Your task to perform on an android device: Search for the best lawnmowers on Lowes.com Image 0: 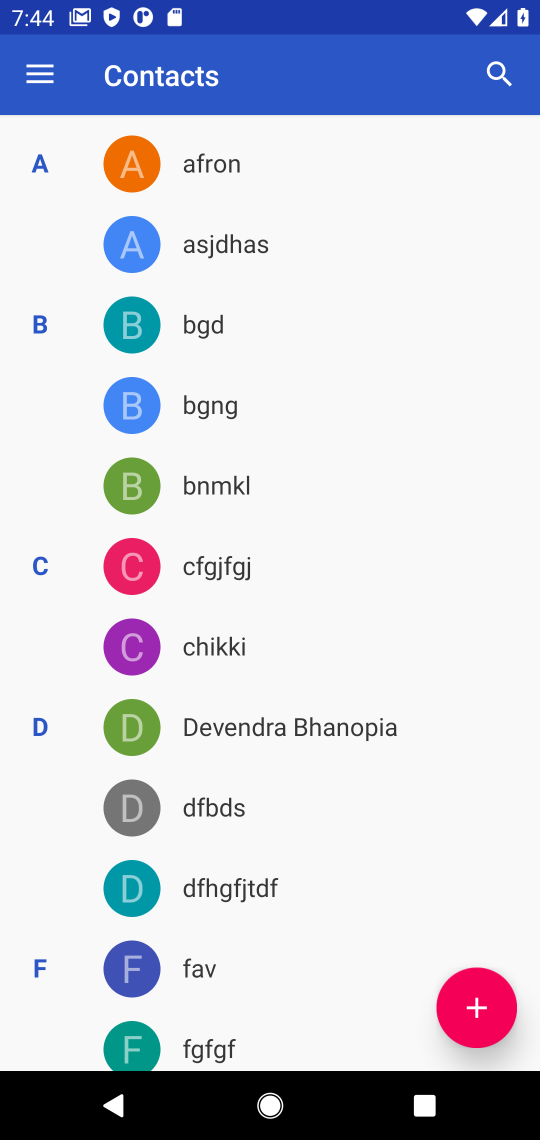
Step 0: press home button
Your task to perform on an android device: Search for the best lawnmowers on Lowes.com Image 1: 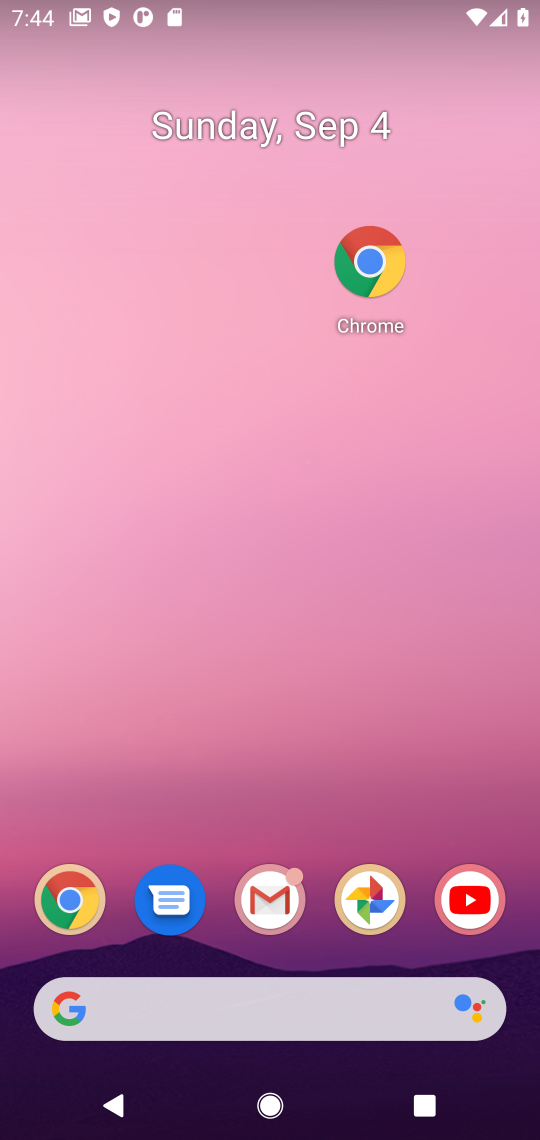
Step 1: drag from (309, 975) to (187, 224)
Your task to perform on an android device: Search for the best lawnmowers on Lowes.com Image 2: 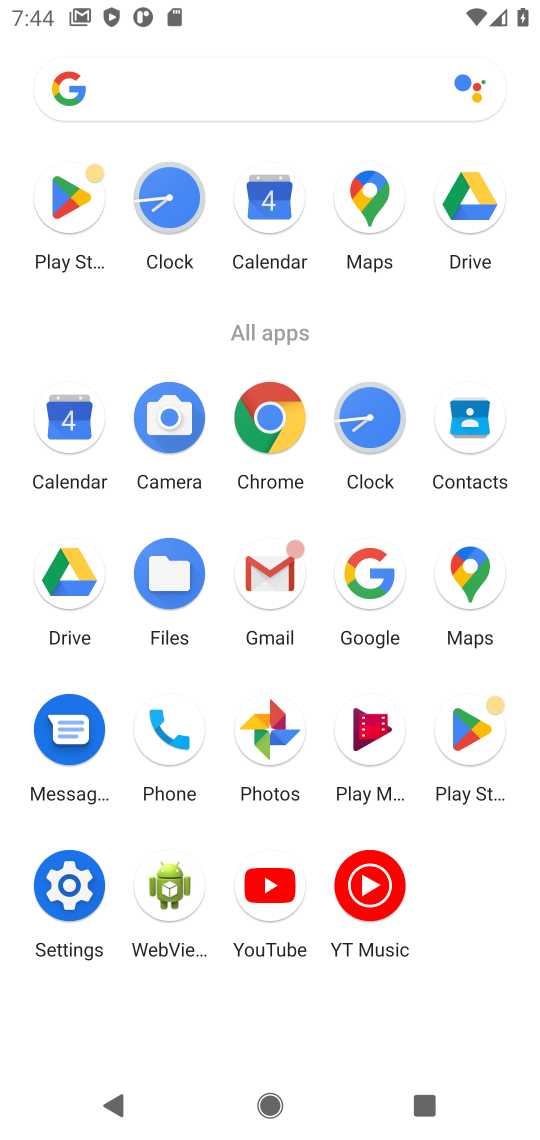
Step 2: click (279, 446)
Your task to perform on an android device: Search for the best lawnmowers on Lowes.com Image 3: 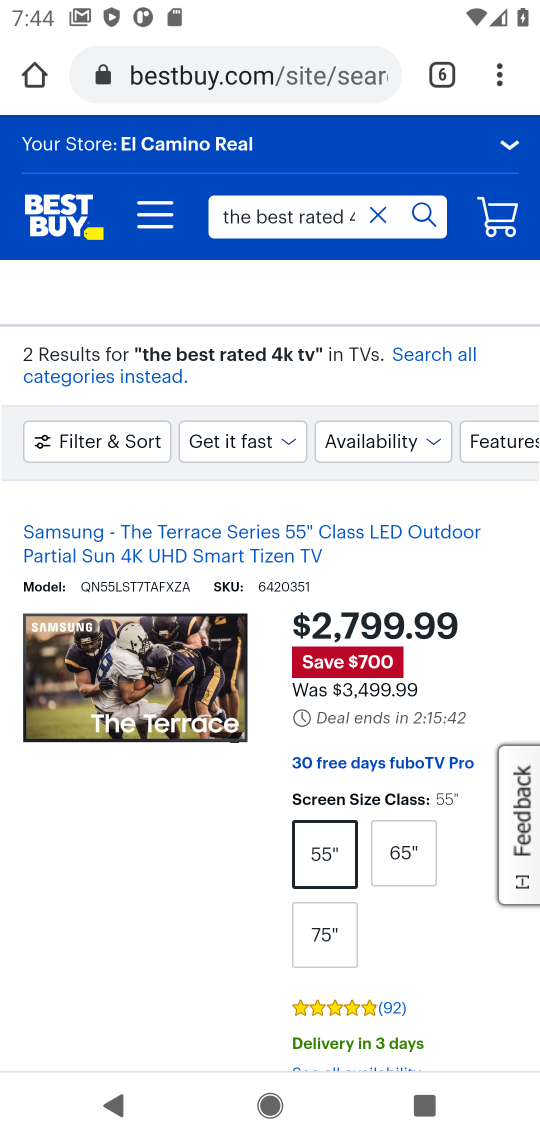
Step 3: click (438, 74)
Your task to perform on an android device: Search for the best lawnmowers on Lowes.com Image 4: 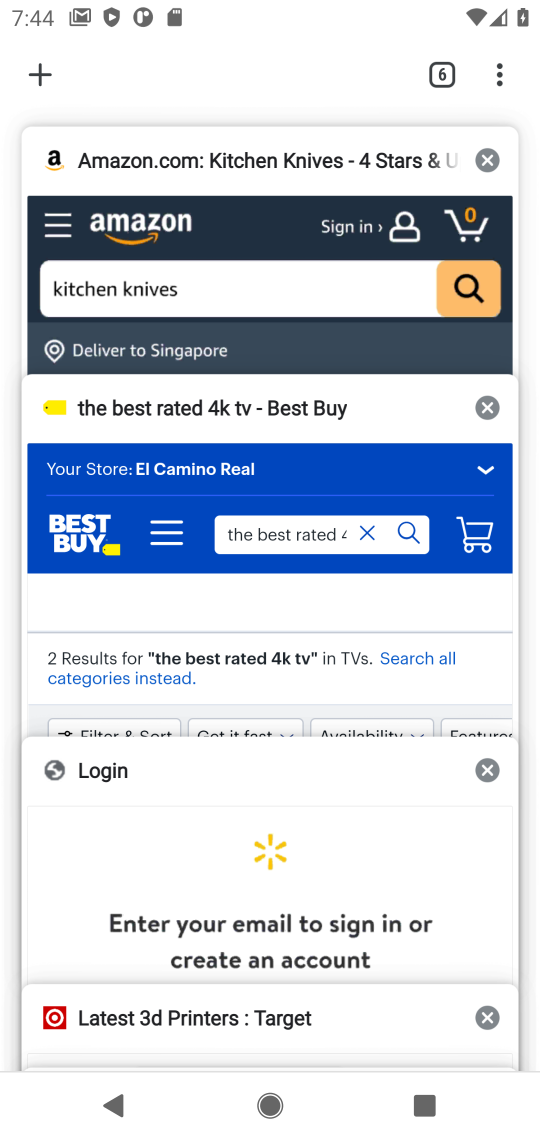
Step 4: click (37, 77)
Your task to perform on an android device: Search for the best lawnmowers on Lowes.com Image 5: 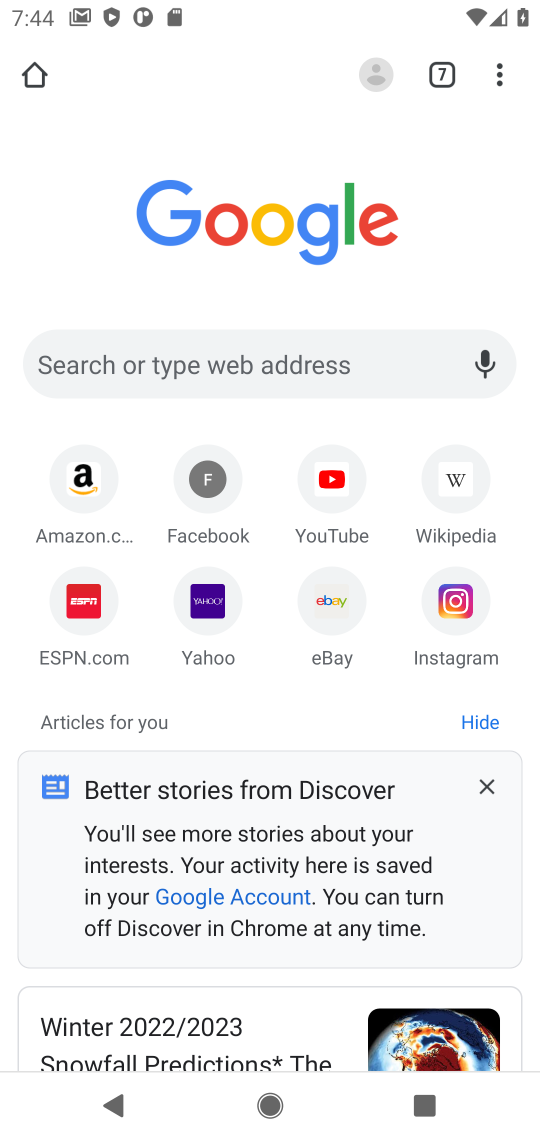
Step 5: click (380, 350)
Your task to perform on an android device: Search for the best lawnmowers on Lowes.com Image 6: 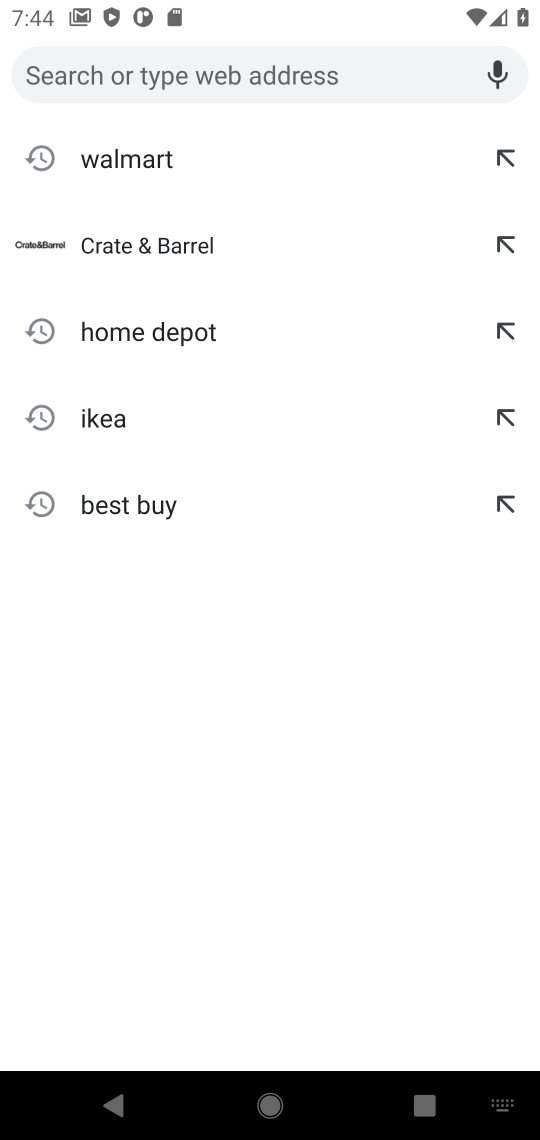
Step 6: type "lowes.com"
Your task to perform on an android device: Search for the best lawnmowers on Lowes.com Image 7: 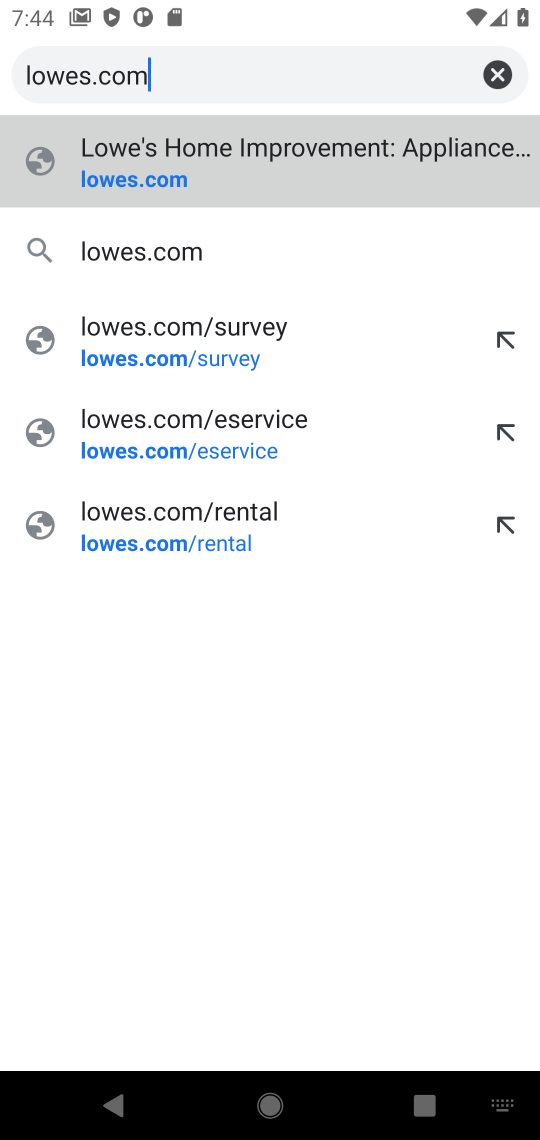
Step 7: click (472, 185)
Your task to perform on an android device: Search for the best lawnmowers on Lowes.com Image 8: 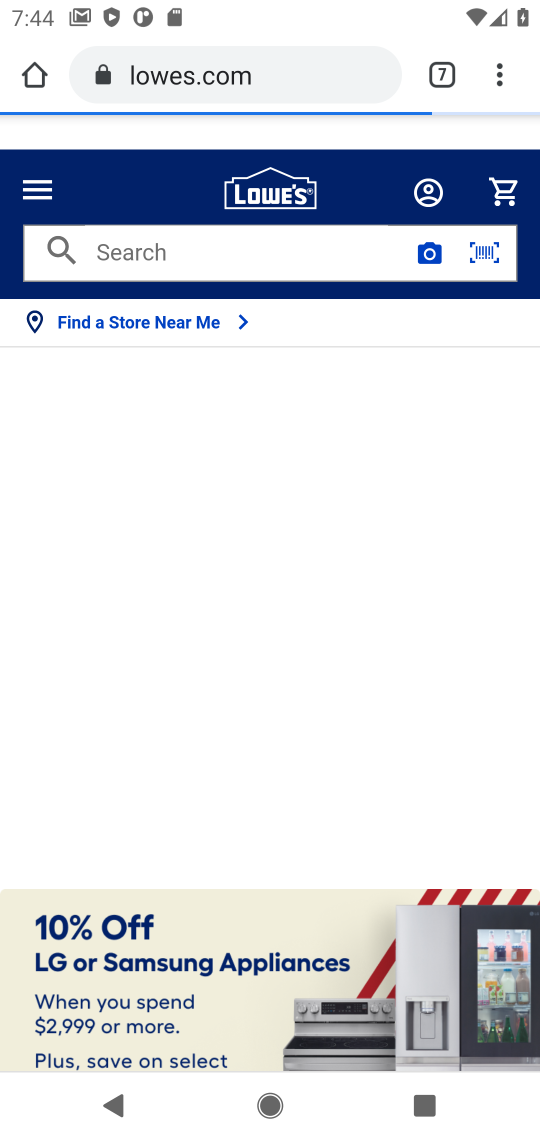
Step 8: click (196, 277)
Your task to perform on an android device: Search for the best lawnmowers on Lowes.com Image 9: 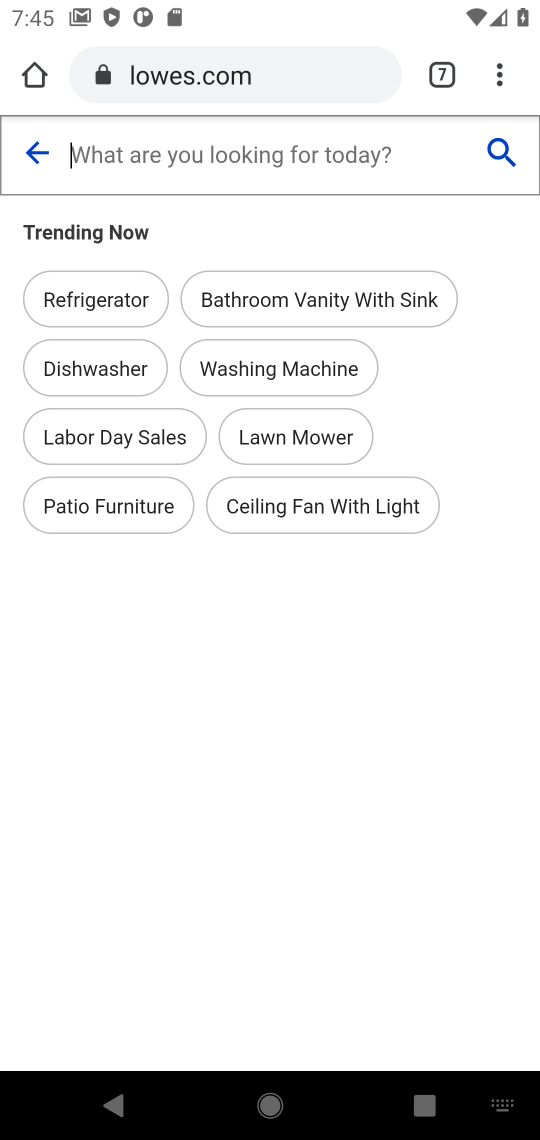
Step 9: type "the best lawnmowers"
Your task to perform on an android device: Search for the best lawnmowers on Lowes.com Image 10: 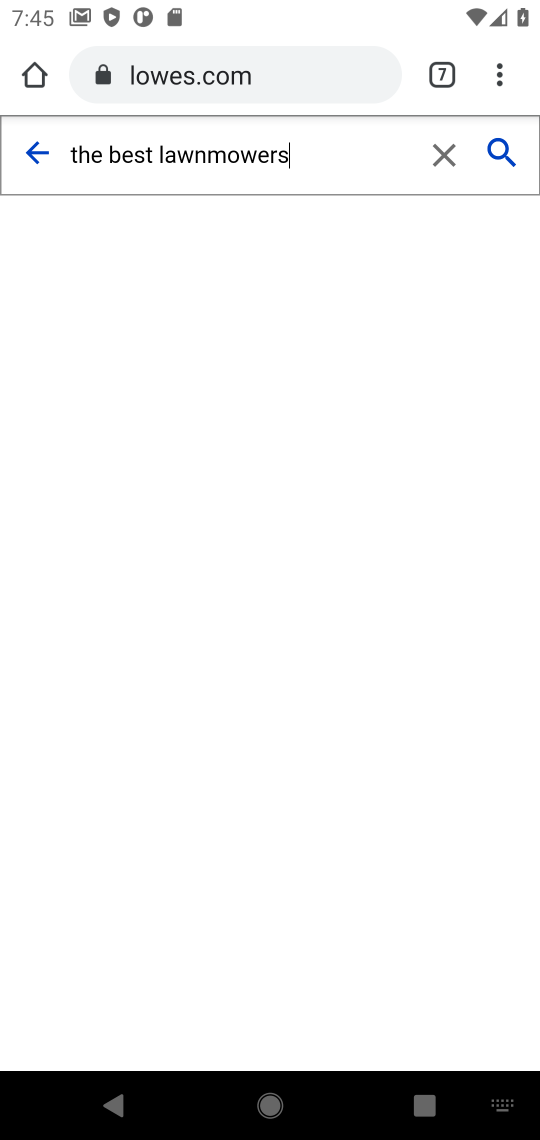
Step 10: click (492, 154)
Your task to perform on an android device: Search for the best lawnmowers on Lowes.com Image 11: 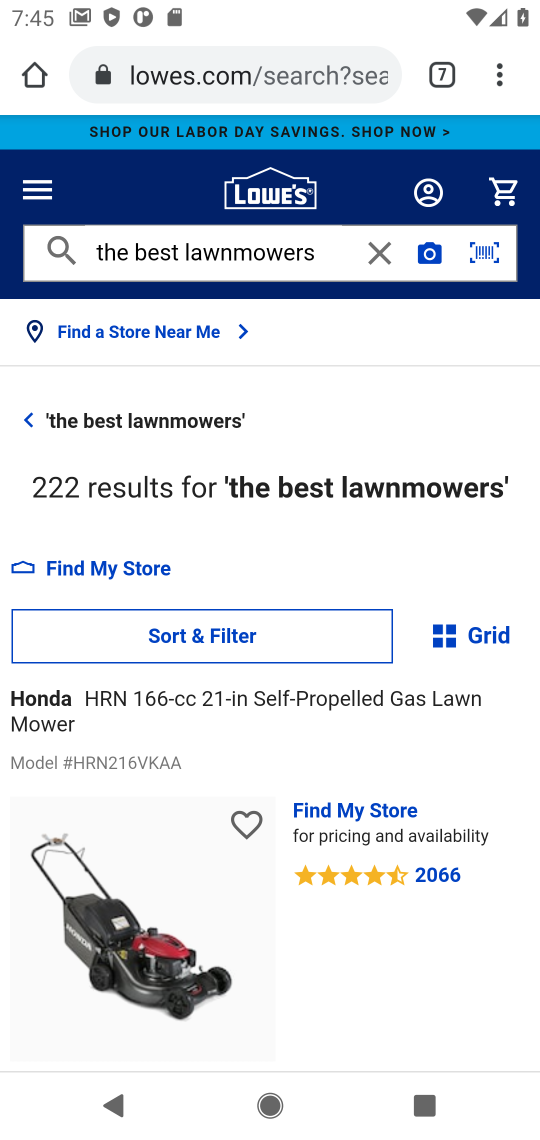
Step 11: task complete